Your task to perform on an android device: Open settings Image 0: 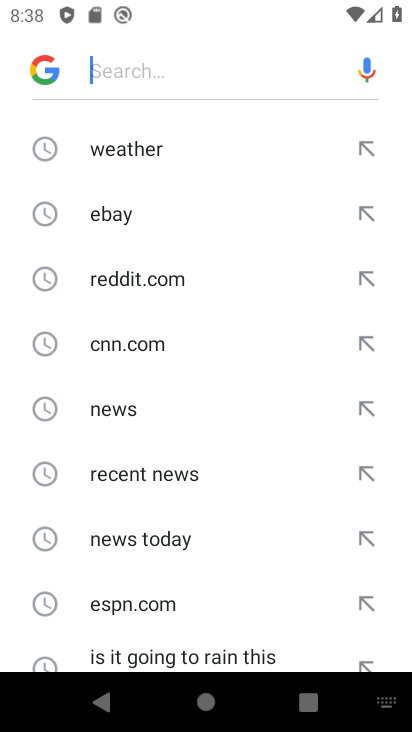
Step 0: press home button
Your task to perform on an android device: Open settings Image 1: 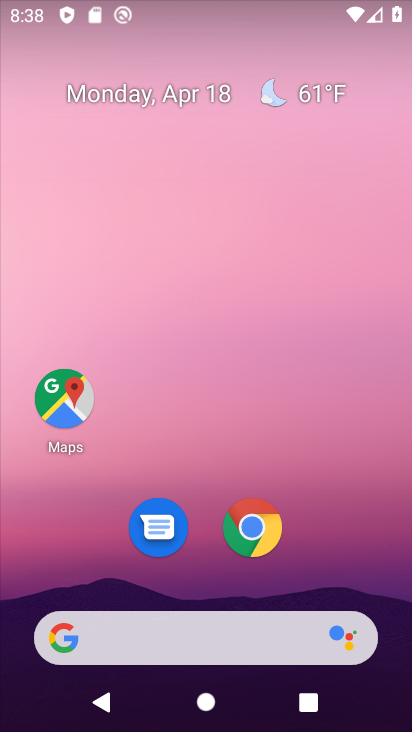
Step 1: drag from (371, 525) to (348, 5)
Your task to perform on an android device: Open settings Image 2: 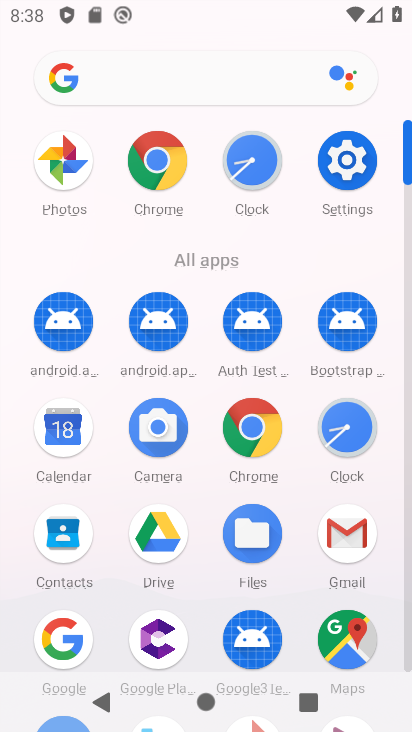
Step 2: click (355, 161)
Your task to perform on an android device: Open settings Image 3: 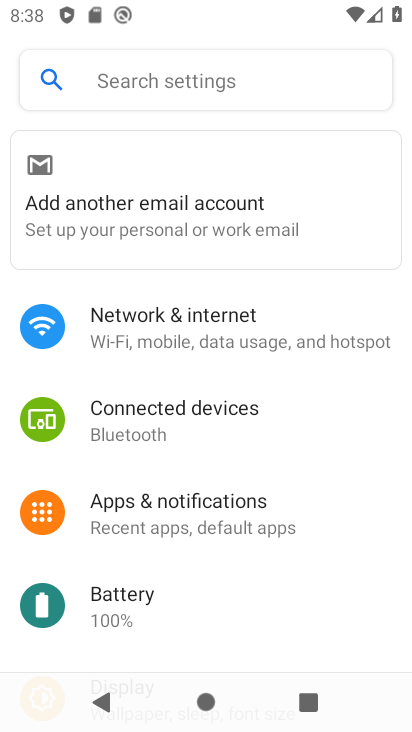
Step 3: task complete